Your task to perform on an android device: Open Android settings Image 0: 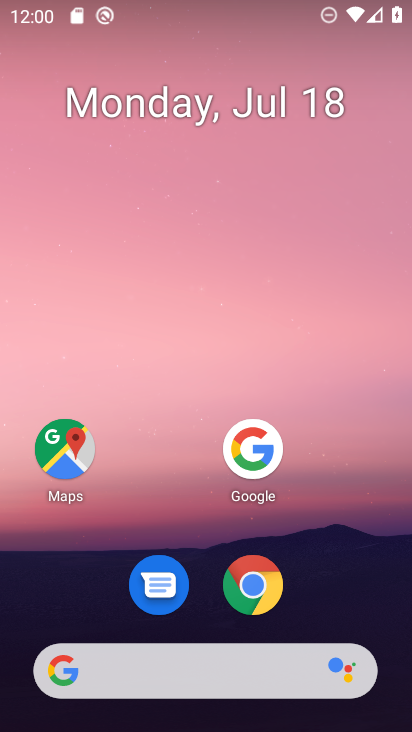
Step 0: drag from (208, 682) to (301, 124)
Your task to perform on an android device: Open Android settings Image 1: 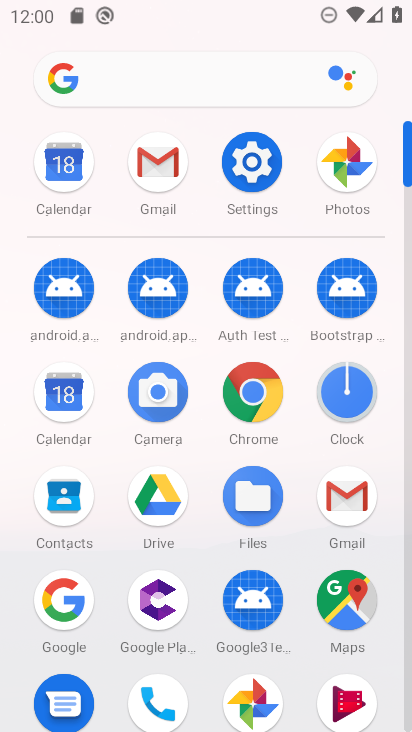
Step 1: click (261, 159)
Your task to perform on an android device: Open Android settings Image 2: 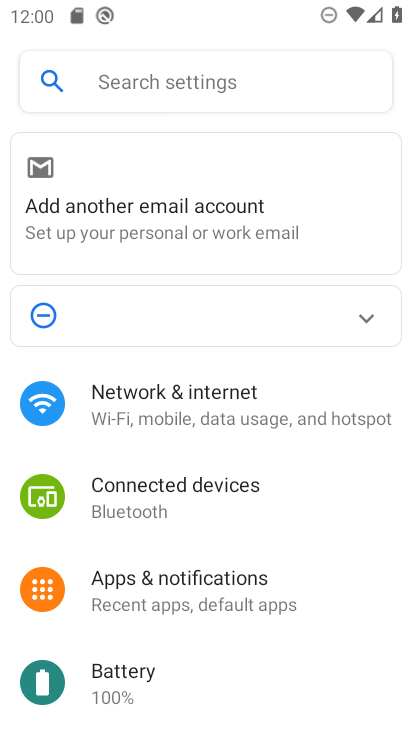
Step 2: drag from (210, 678) to (325, 69)
Your task to perform on an android device: Open Android settings Image 3: 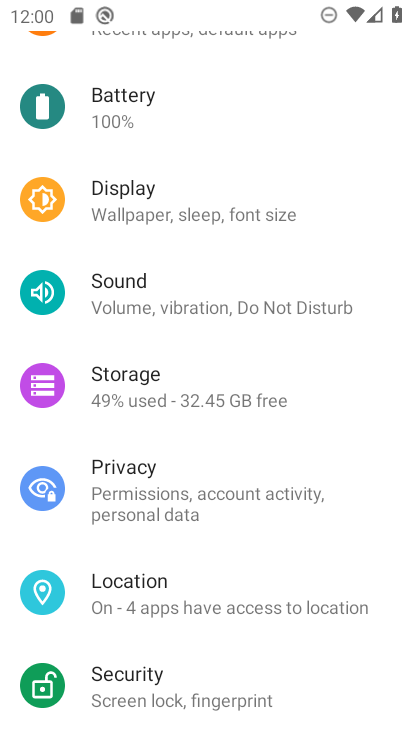
Step 3: drag from (244, 673) to (289, 60)
Your task to perform on an android device: Open Android settings Image 4: 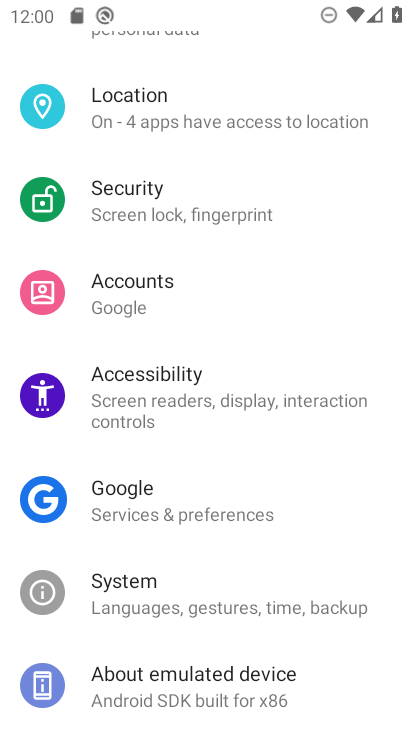
Step 4: click (215, 682)
Your task to perform on an android device: Open Android settings Image 5: 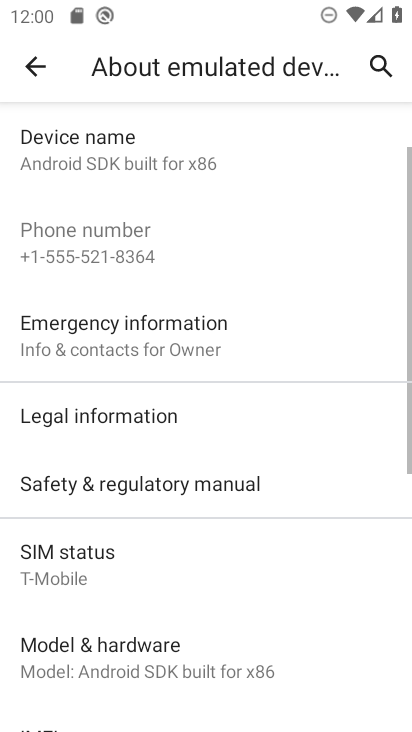
Step 5: task complete